Your task to perform on an android device: Open the calendar and show me this week's events? Image 0: 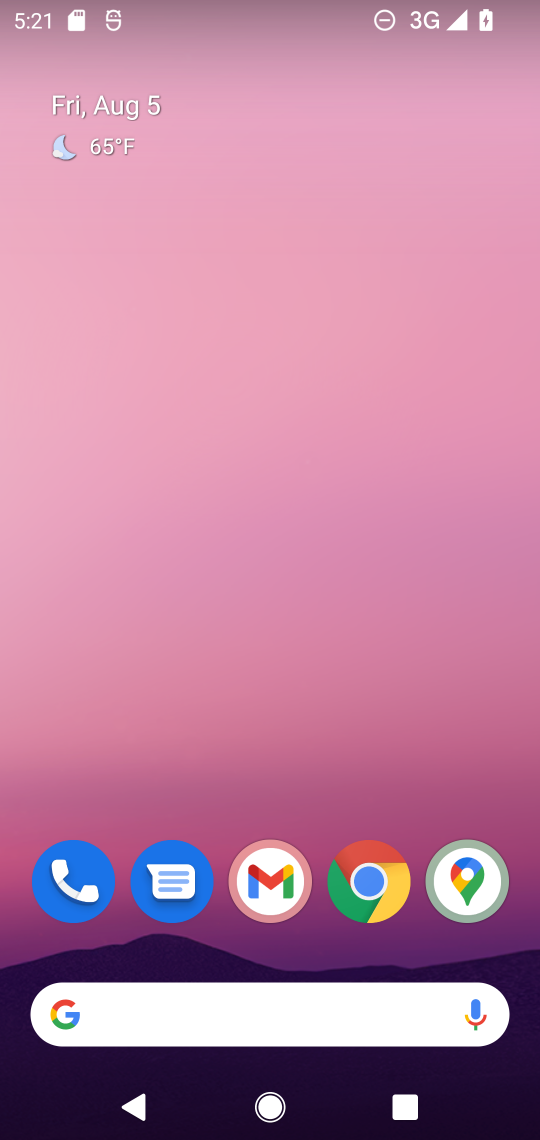
Step 0: drag from (409, 859) to (184, 88)
Your task to perform on an android device: Open the calendar and show me this week's events? Image 1: 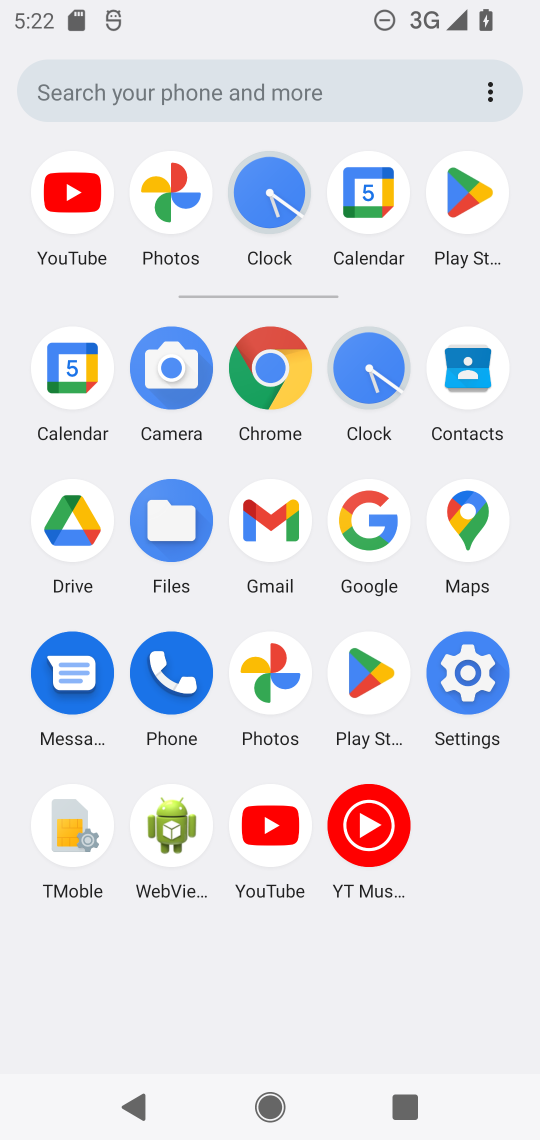
Step 1: click (42, 375)
Your task to perform on an android device: Open the calendar and show me this week's events? Image 2: 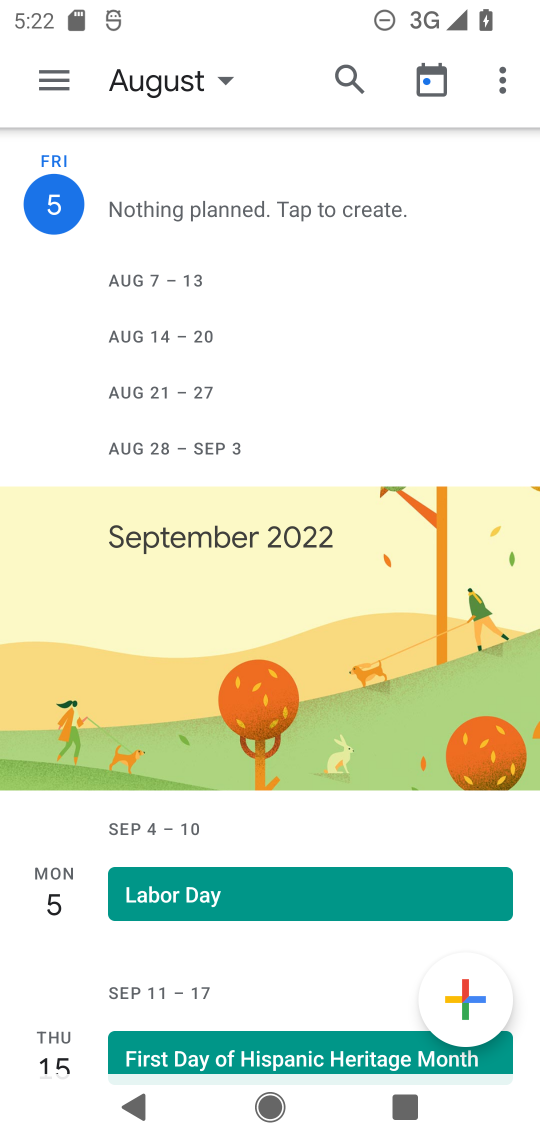
Step 2: task complete